Your task to perform on an android device: move an email to a new category in the gmail app Image 0: 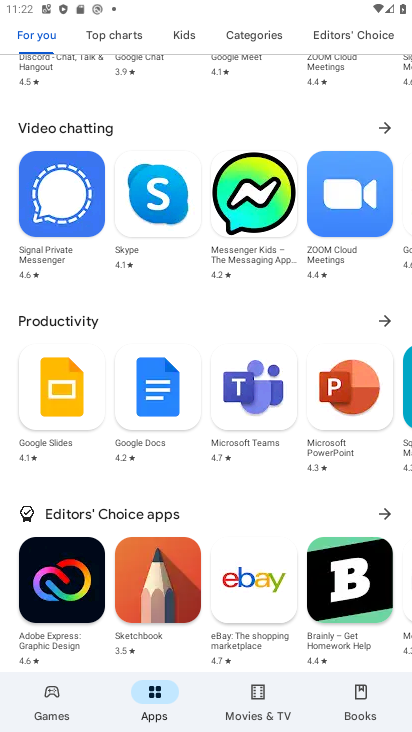
Step 0: press home button
Your task to perform on an android device: move an email to a new category in the gmail app Image 1: 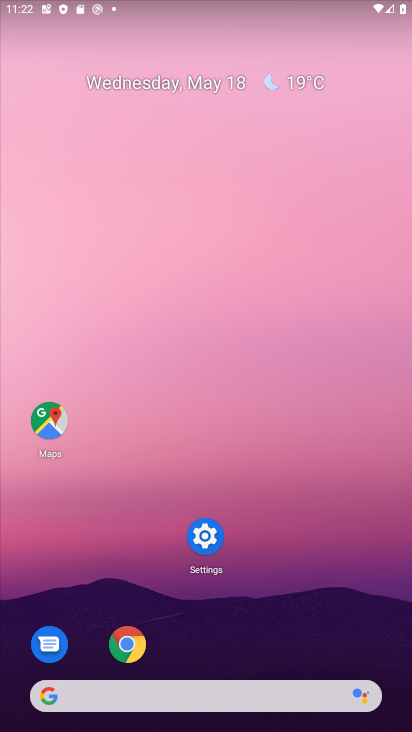
Step 1: drag from (330, 484) to (250, 196)
Your task to perform on an android device: move an email to a new category in the gmail app Image 2: 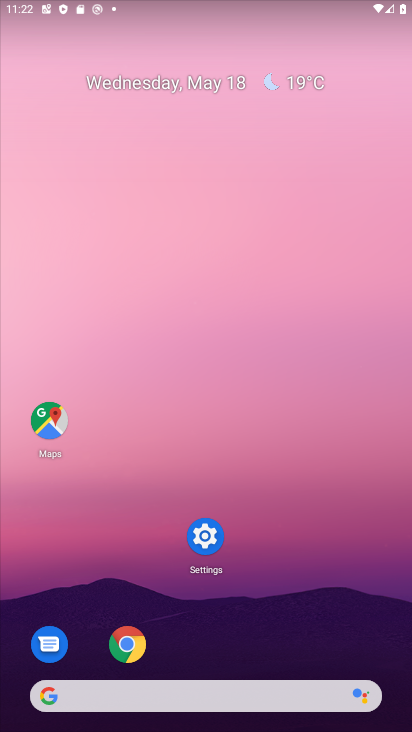
Step 2: drag from (302, 618) to (244, 175)
Your task to perform on an android device: move an email to a new category in the gmail app Image 3: 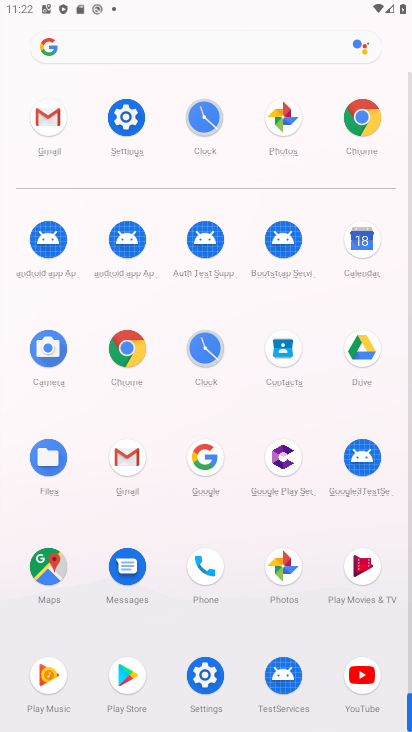
Step 3: click (123, 449)
Your task to perform on an android device: move an email to a new category in the gmail app Image 4: 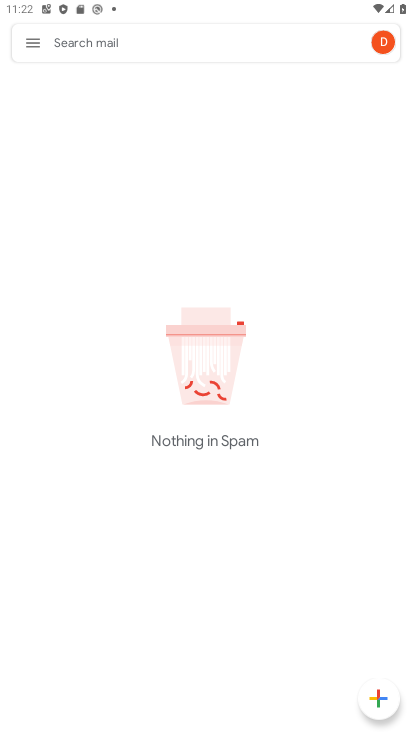
Step 4: click (27, 35)
Your task to perform on an android device: move an email to a new category in the gmail app Image 5: 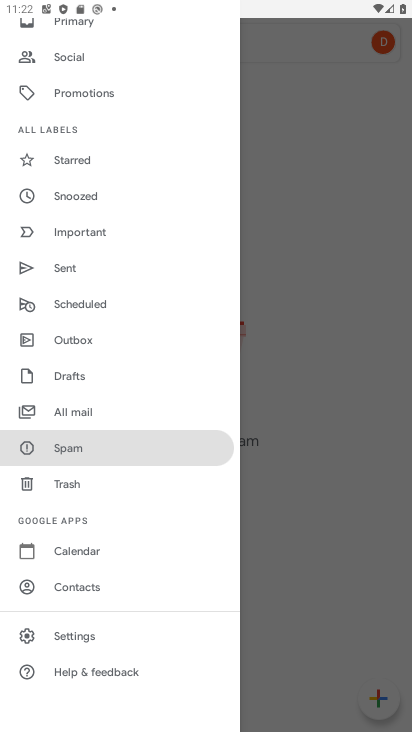
Step 5: click (89, 415)
Your task to perform on an android device: move an email to a new category in the gmail app Image 6: 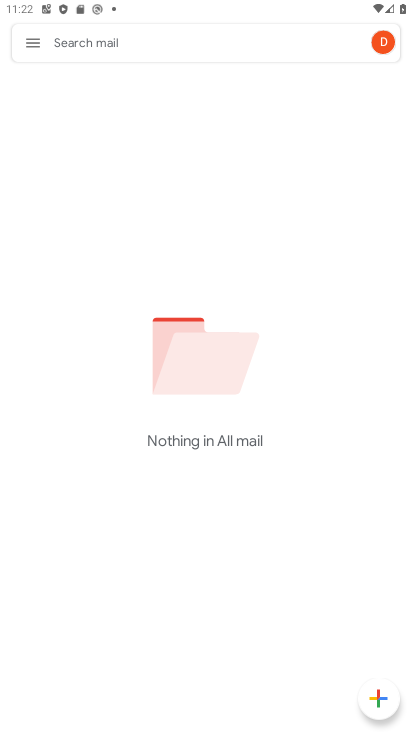
Step 6: task complete